Your task to perform on an android device: turn off sleep mode Image 0: 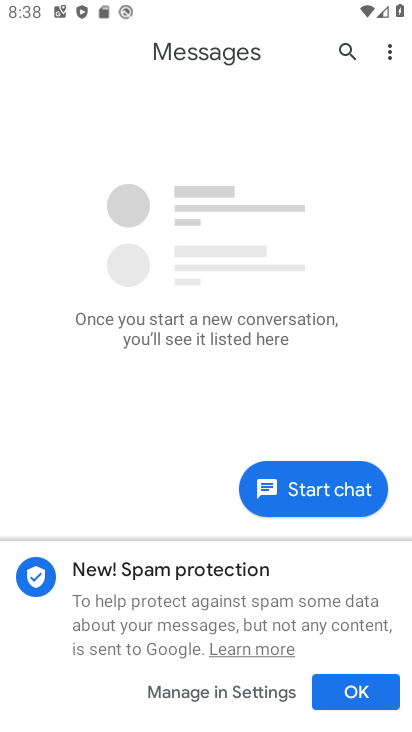
Step 0: press back button
Your task to perform on an android device: turn off sleep mode Image 1: 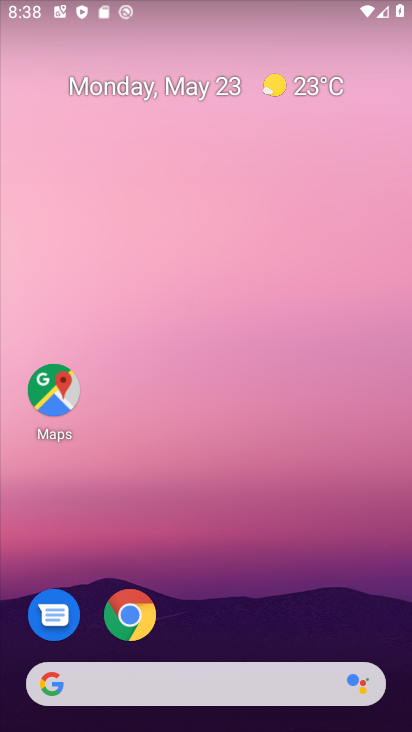
Step 1: drag from (272, 591) to (259, 167)
Your task to perform on an android device: turn off sleep mode Image 2: 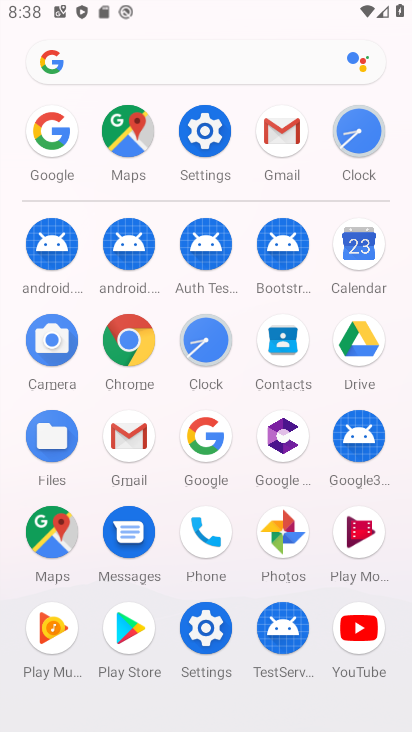
Step 2: click (207, 131)
Your task to perform on an android device: turn off sleep mode Image 3: 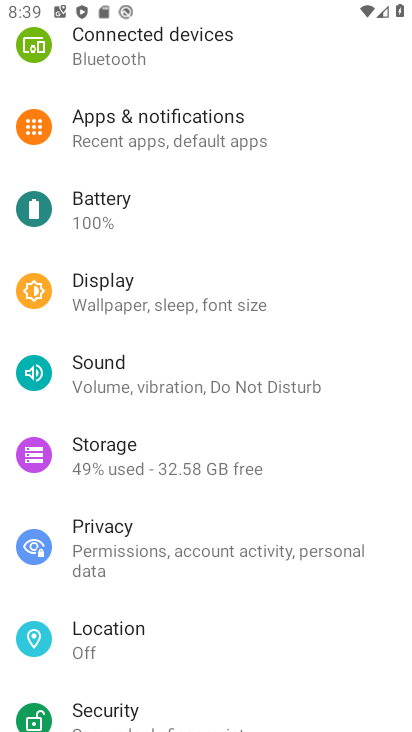
Step 3: click (162, 306)
Your task to perform on an android device: turn off sleep mode Image 4: 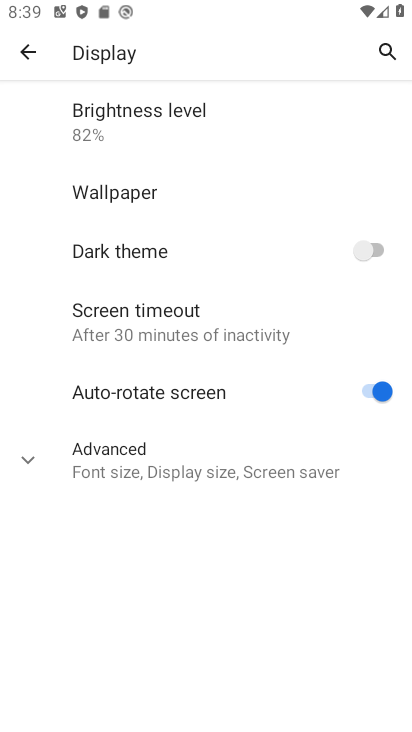
Step 4: click (155, 323)
Your task to perform on an android device: turn off sleep mode Image 5: 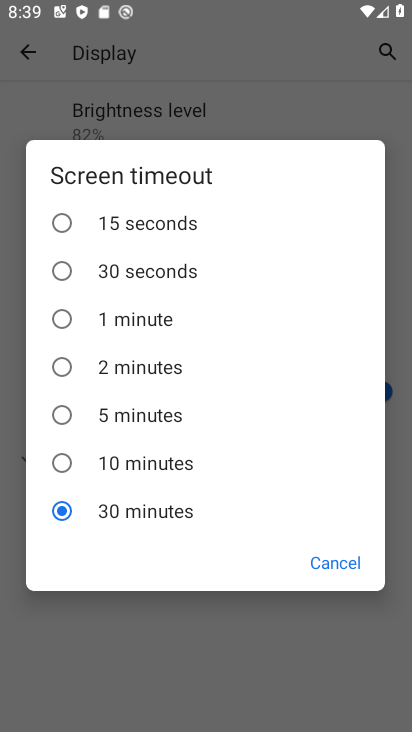
Step 5: click (335, 569)
Your task to perform on an android device: turn off sleep mode Image 6: 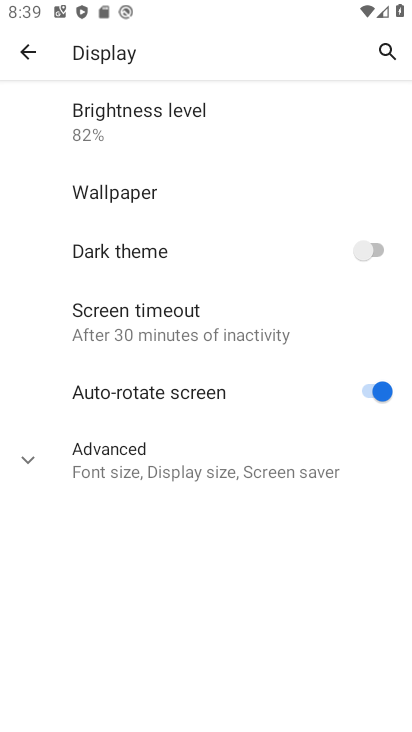
Step 6: click (170, 469)
Your task to perform on an android device: turn off sleep mode Image 7: 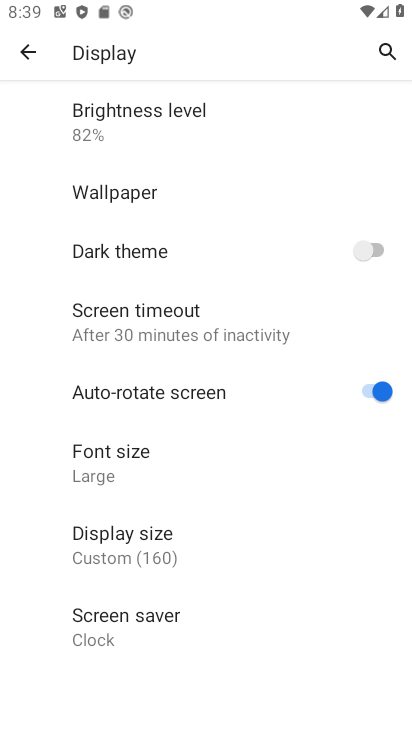
Step 7: task complete